Your task to perform on an android device: Go to sound settings Image 0: 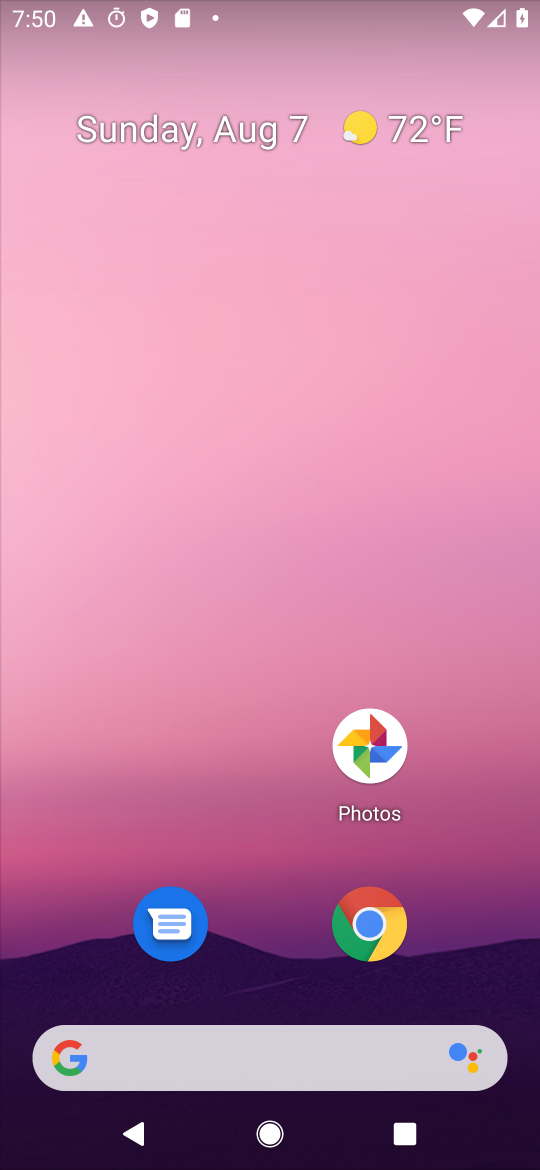
Step 0: drag from (277, 938) to (333, 341)
Your task to perform on an android device: Go to sound settings Image 1: 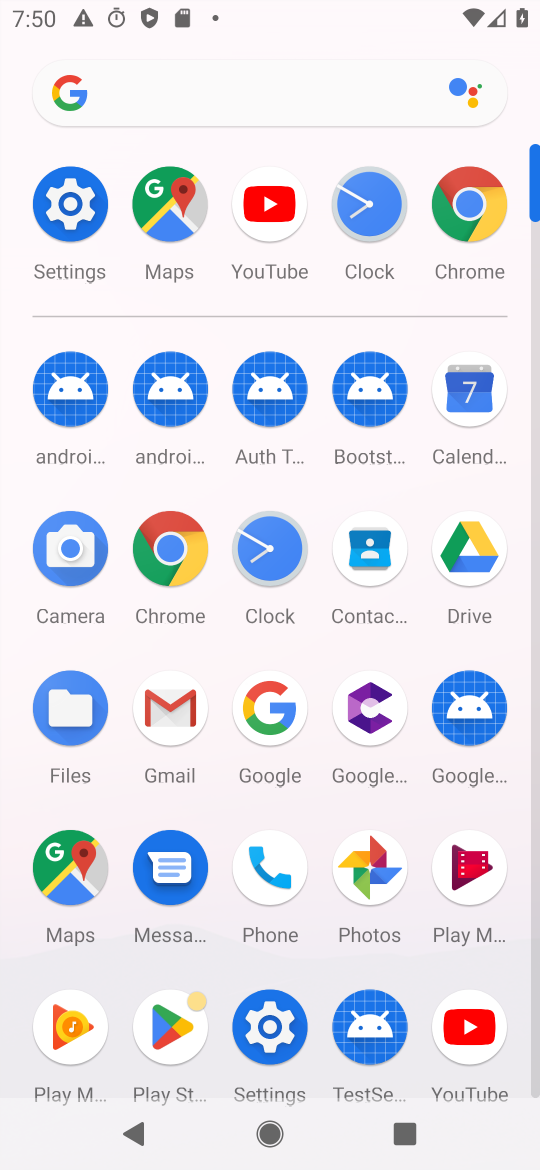
Step 1: drag from (59, 216) to (291, 326)
Your task to perform on an android device: Go to sound settings Image 2: 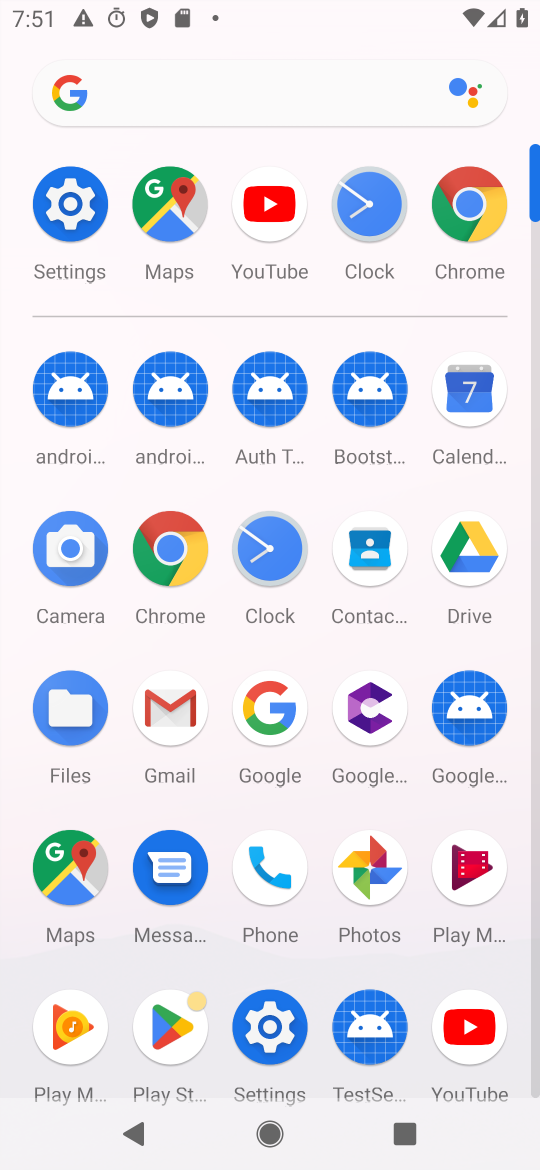
Step 2: drag from (265, 1034) to (406, 983)
Your task to perform on an android device: Go to sound settings Image 3: 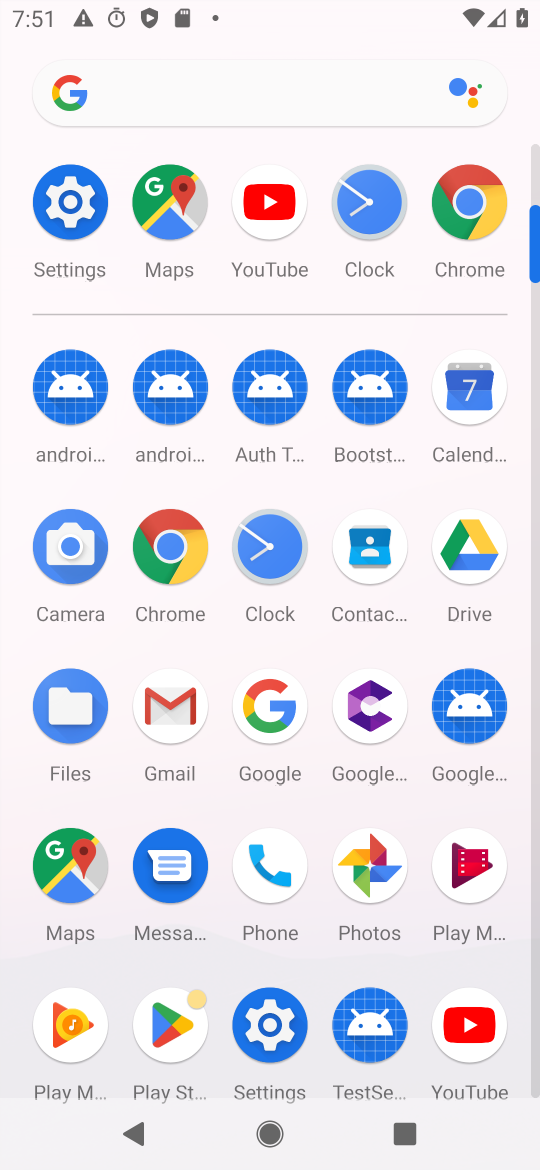
Step 3: drag from (261, 1025) to (457, 946)
Your task to perform on an android device: Go to sound settings Image 4: 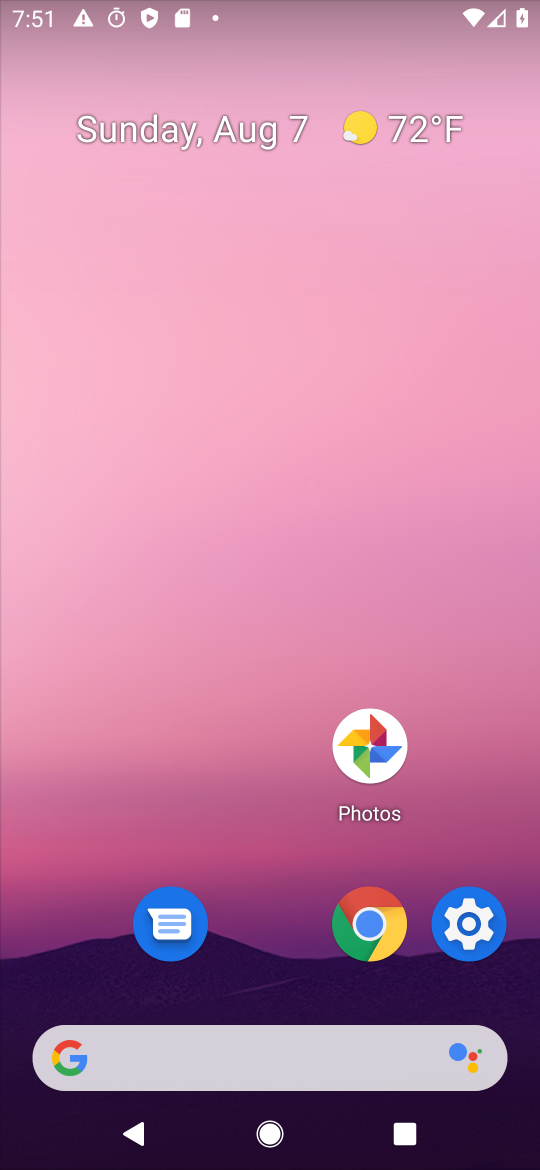
Step 4: click (470, 922)
Your task to perform on an android device: Go to sound settings Image 5: 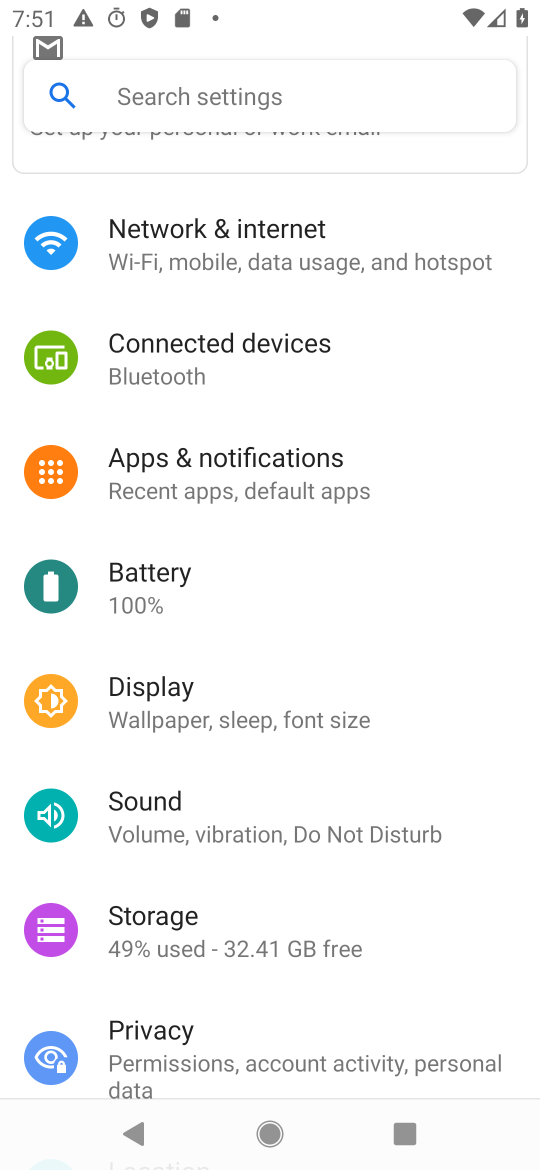
Step 5: click (200, 95)
Your task to perform on an android device: Go to sound settings Image 6: 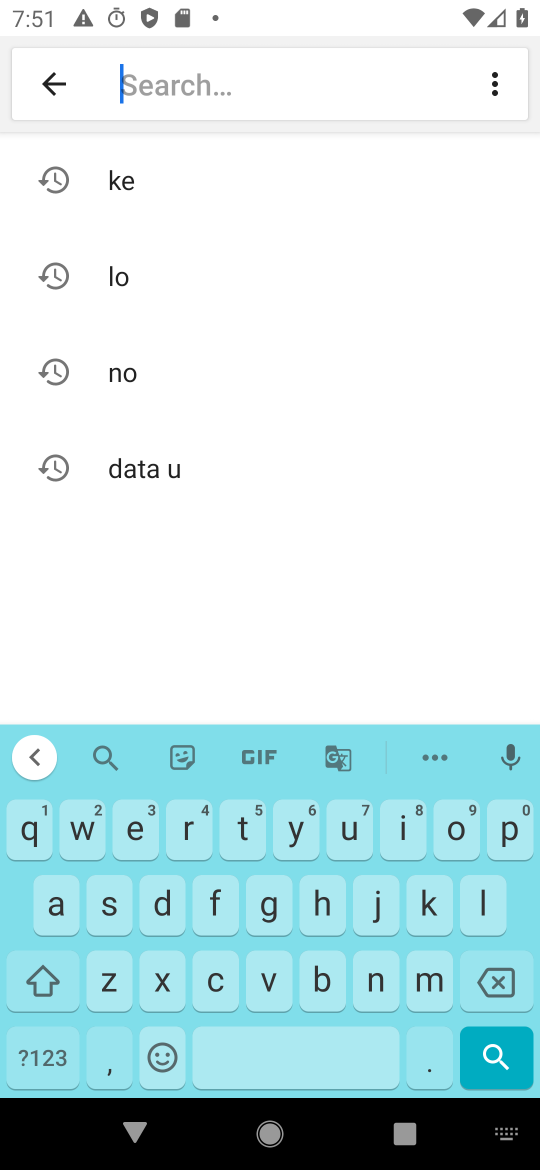
Step 6: click (106, 908)
Your task to perform on an android device: Go to sound settings Image 7: 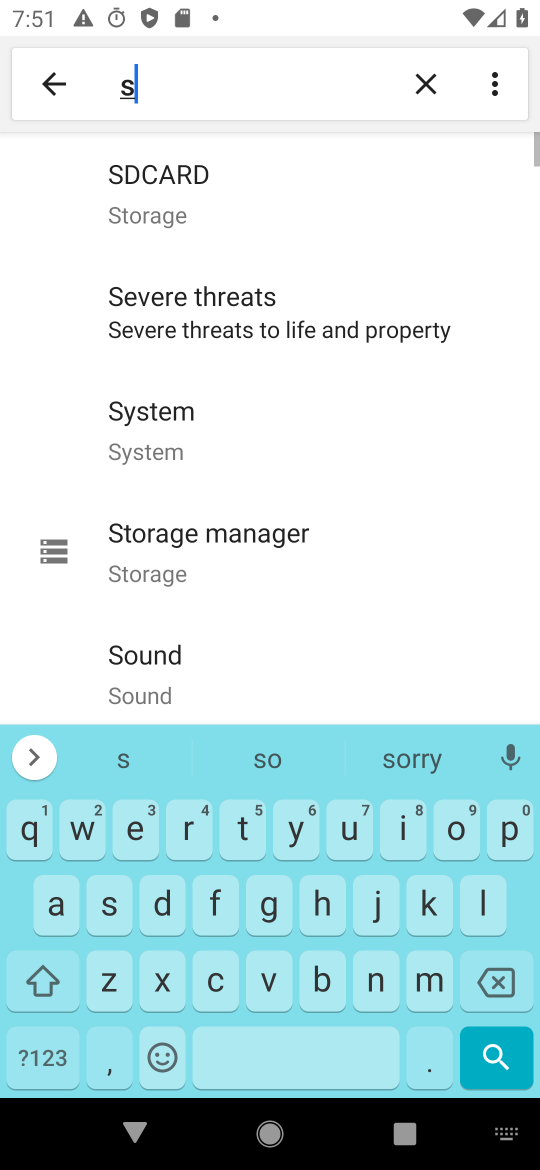
Step 7: click (444, 838)
Your task to perform on an android device: Go to sound settings Image 8: 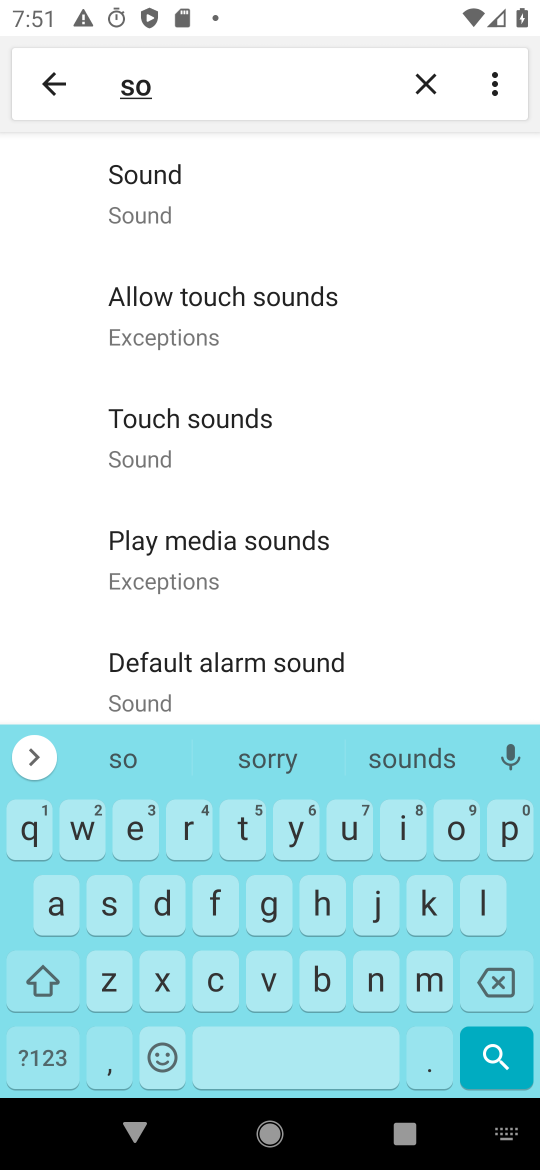
Step 8: click (179, 183)
Your task to perform on an android device: Go to sound settings Image 9: 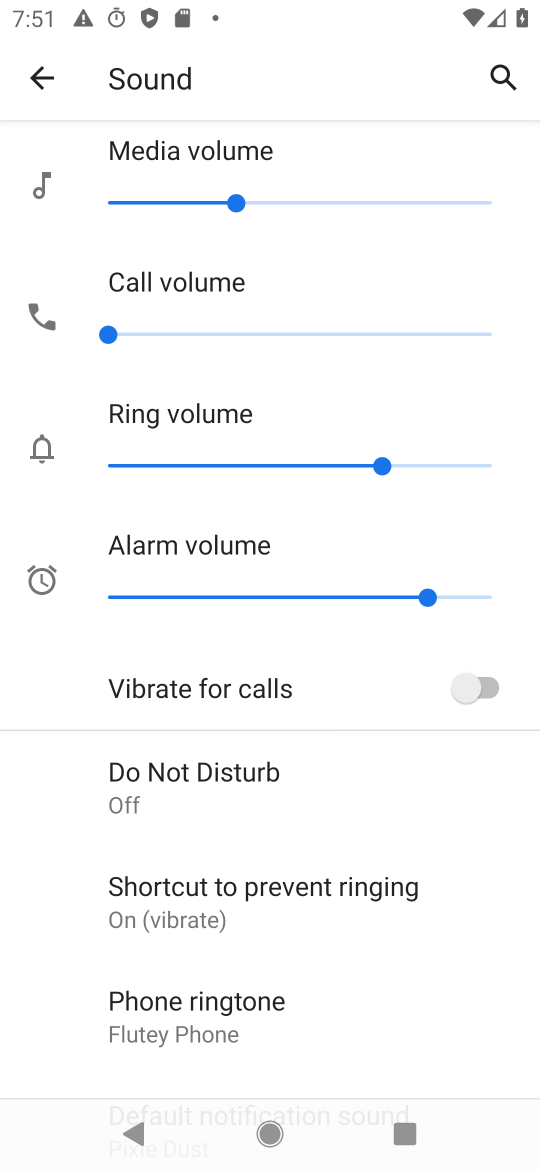
Step 9: task complete